Your task to perform on an android device: check data usage Image 0: 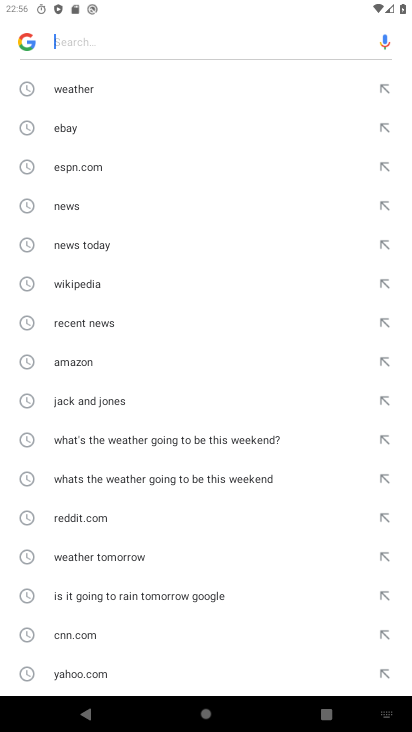
Step 0: press home button
Your task to perform on an android device: check data usage Image 1: 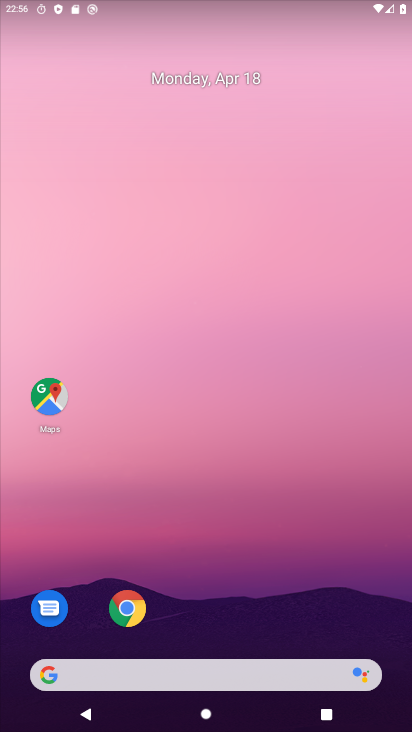
Step 1: drag from (252, 440) to (231, 84)
Your task to perform on an android device: check data usage Image 2: 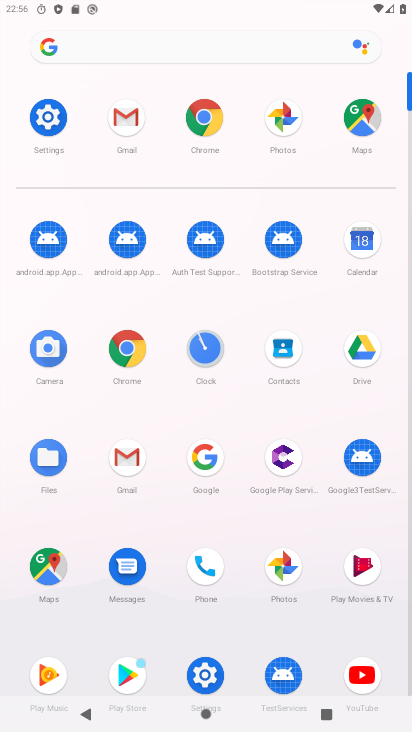
Step 2: click (51, 104)
Your task to perform on an android device: check data usage Image 3: 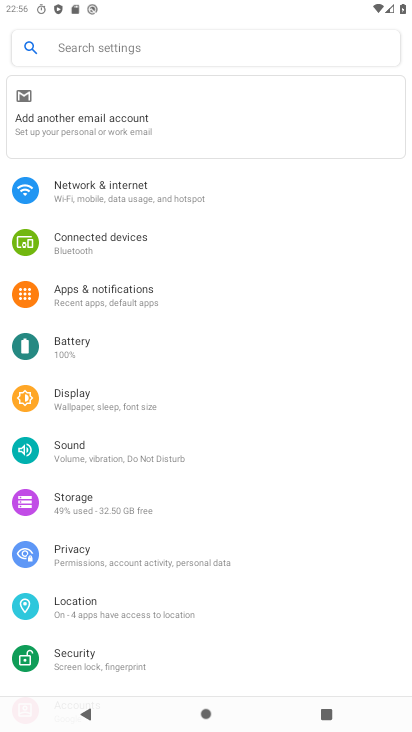
Step 3: drag from (210, 388) to (226, 85)
Your task to perform on an android device: check data usage Image 4: 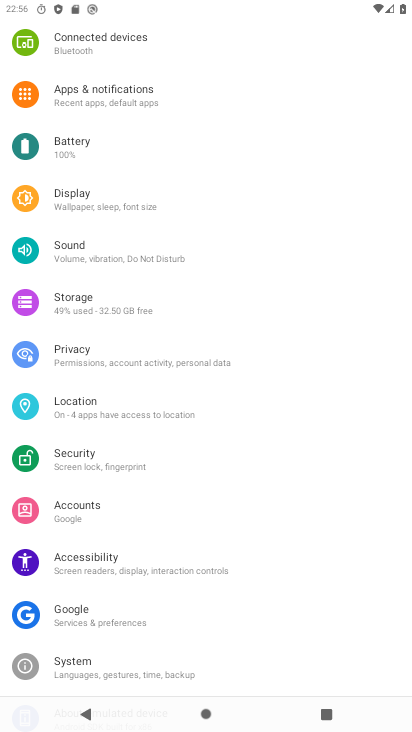
Step 4: drag from (237, 452) to (248, 248)
Your task to perform on an android device: check data usage Image 5: 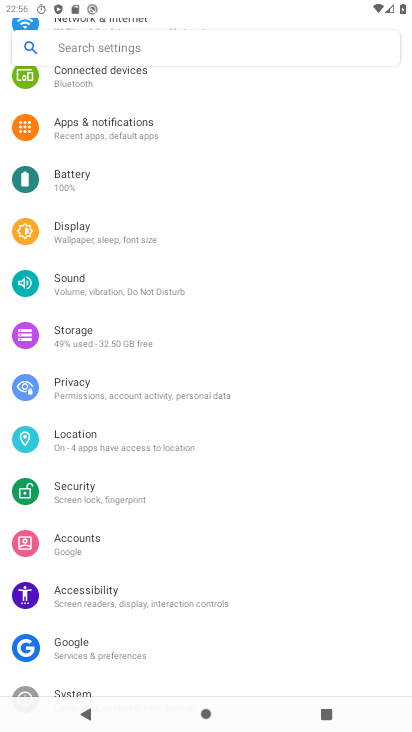
Step 5: drag from (172, 232) to (190, 386)
Your task to perform on an android device: check data usage Image 6: 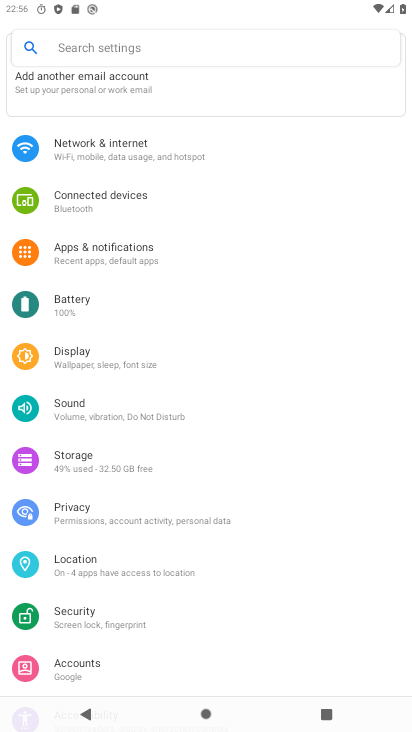
Step 6: drag from (248, 483) to (217, 246)
Your task to perform on an android device: check data usage Image 7: 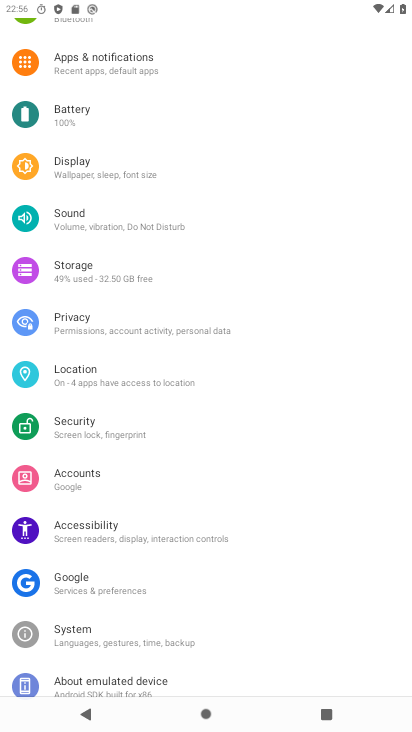
Step 7: drag from (217, 246) to (206, 543)
Your task to perform on an android device: check data usage Image 8: 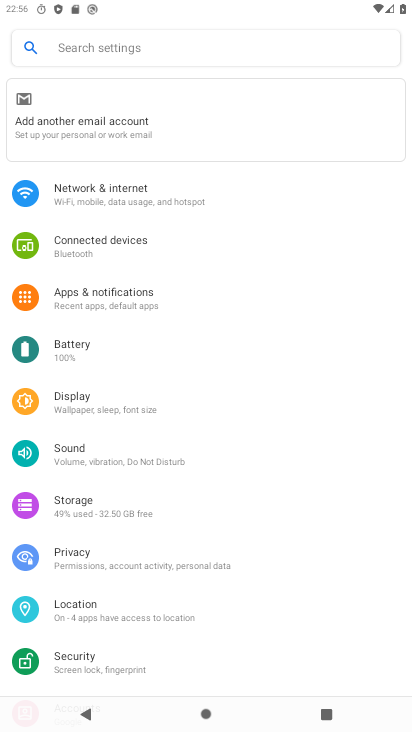
Step 8: drag from (180, 502) to (185, 188)
Your task to perform on an android device: check data usage Image 9: 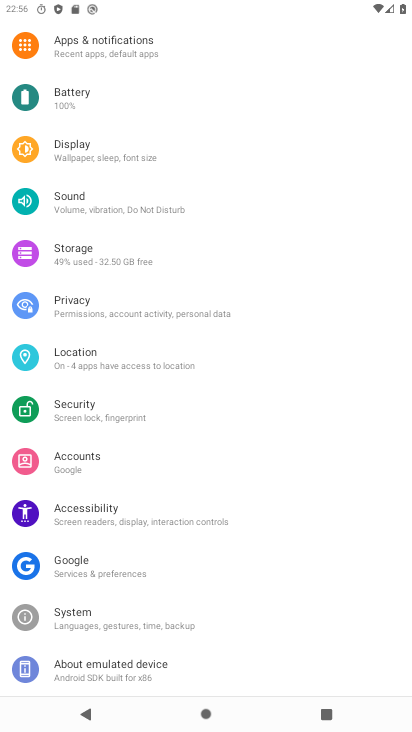
Step 9: drag from (175, 280) to (193, 654)
Your task to perform on an android device: check data usage Image 10: 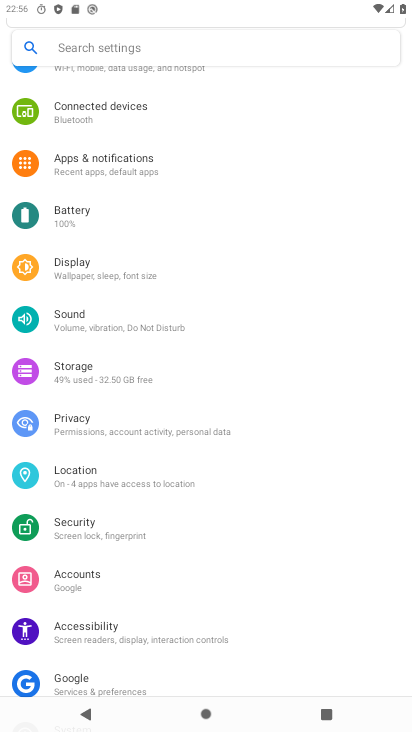
Step 10: drag from (116, 110) to (157, 385)
Your task to perform on an android device: check data usage Image 11: 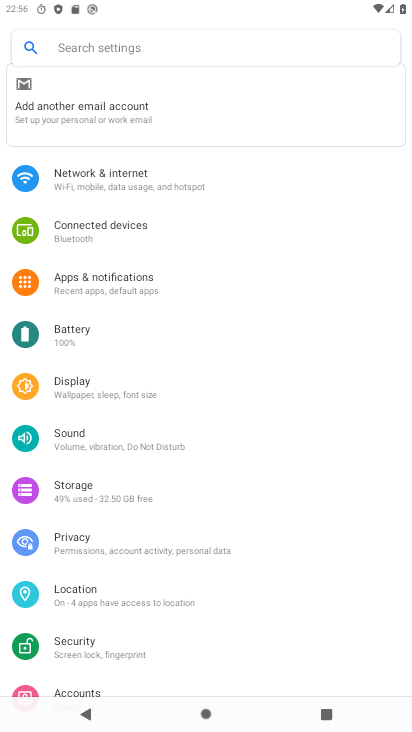
Step 11: click (92, 185)
Your task to perform on an android device: check data usage Image 12: 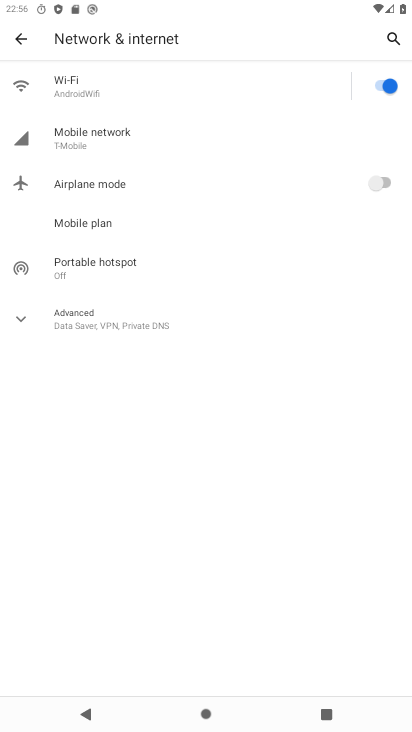
Step 12: click (123, 132)
Your task to perform on an android device: check data usage Image 13: 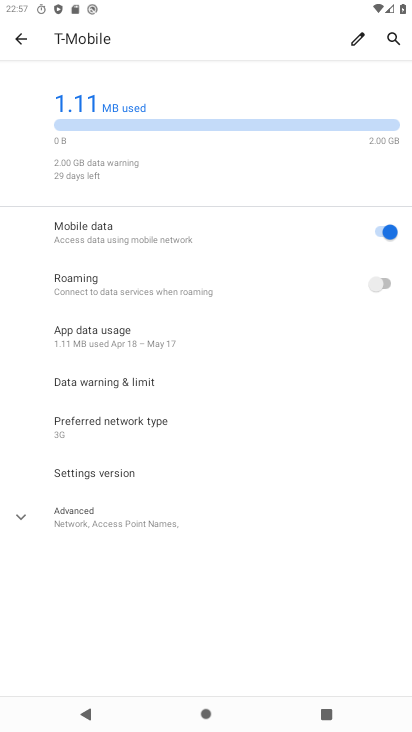
Step 13: task complete